Your task to perform on an android device: What is the recent news? Image 0: 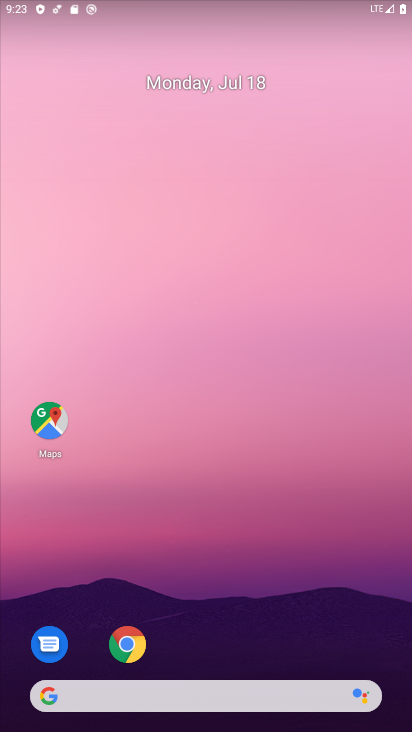
Step 0: drag from (36, 263) to (377, 351)
Your task to perform on an android device: What is the recent news? Image 1: 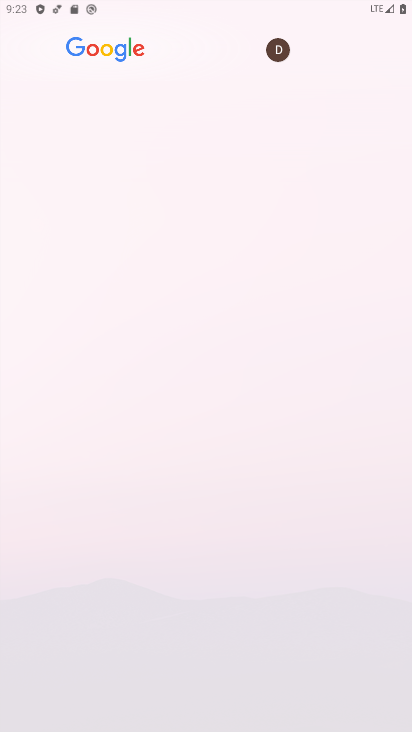
Step 1: task complete